Your task to perform on an android device: Open calendar and show me the second week of next month Image 0: 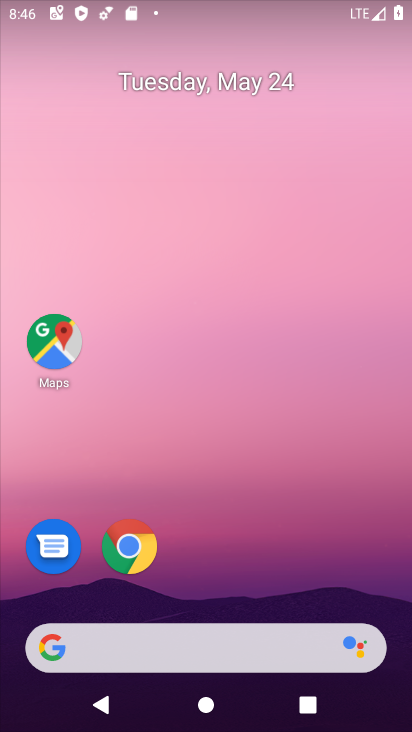
Step 0: drag from (244, 528) to (292, 29)
Your task to perform on an android device: Open calendar and show me the second week of next month Image 1: 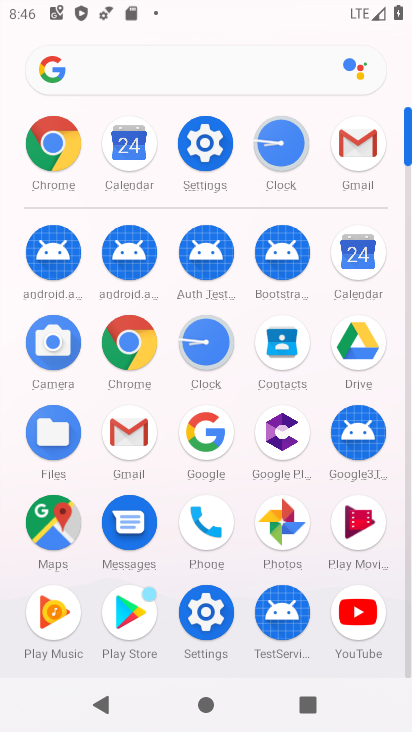
Step 1: click (125, 146)
Your task to perform on an android device: Open calendar and show me the second week of next month Image 2: 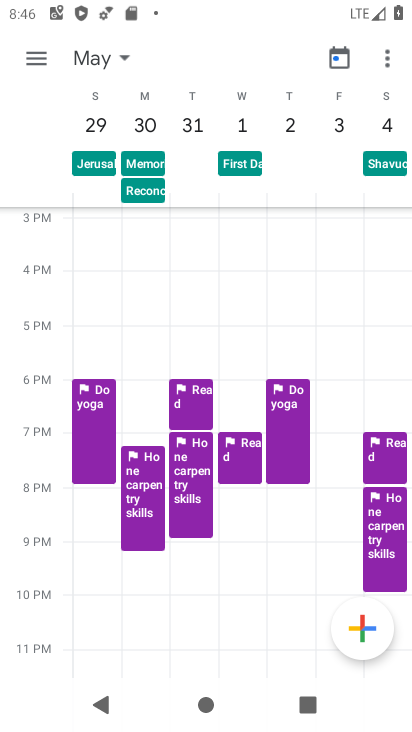
Step 2: task complete